Your task to perform on an android device: turn off location history Image 0: 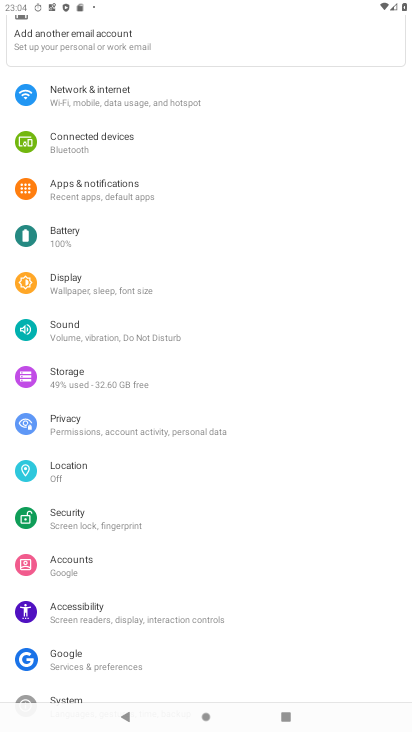
Step 0: click (59, 466)
Your task to perform on an android device: turn off location history Image 1: 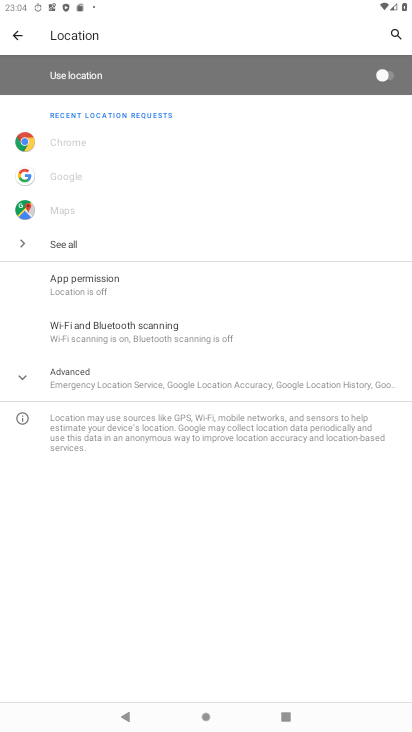
Step 1: click (88, 376)
Your task to perform on an android device: turn off location history Image 2: 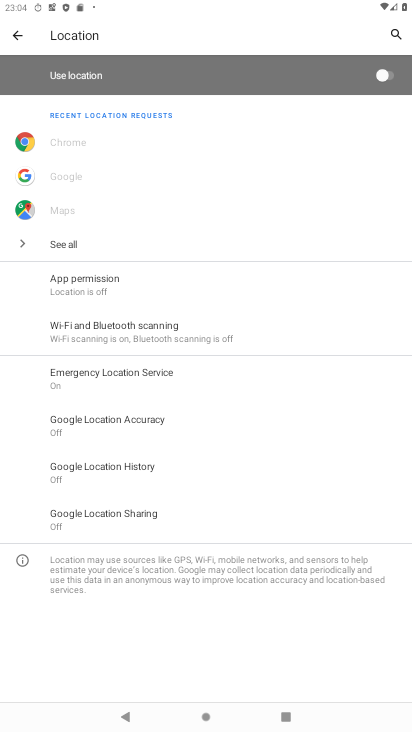
Step 2: click (116, 467)
Your task to perform on an android device: turn off location history Image 3: 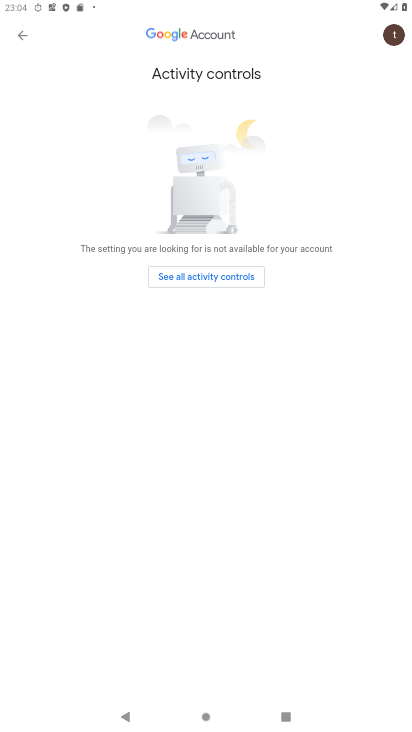
Step 3: click (190, 277)
Your task to perform on an android device: turn off location history Image 4: 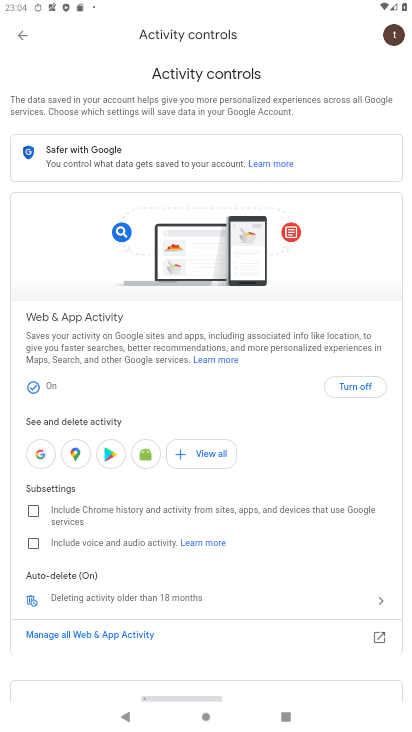
Step 4: click (361, 386)
Your task to perform on an android device: turn off location history Image 5: 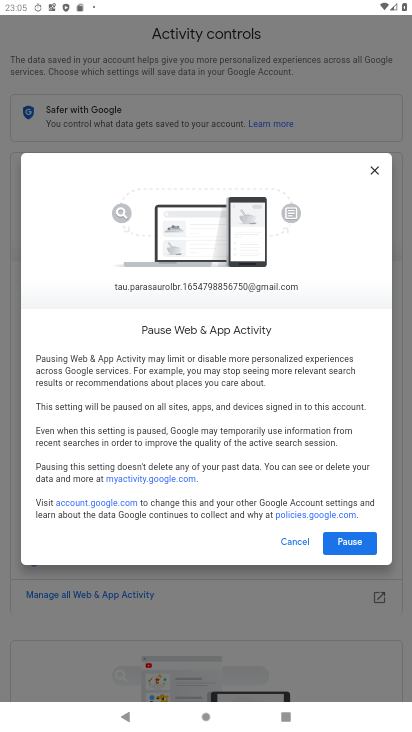
Step 5: click (361, 542)
Your task to perform on an android device: turn off location history Image 6: 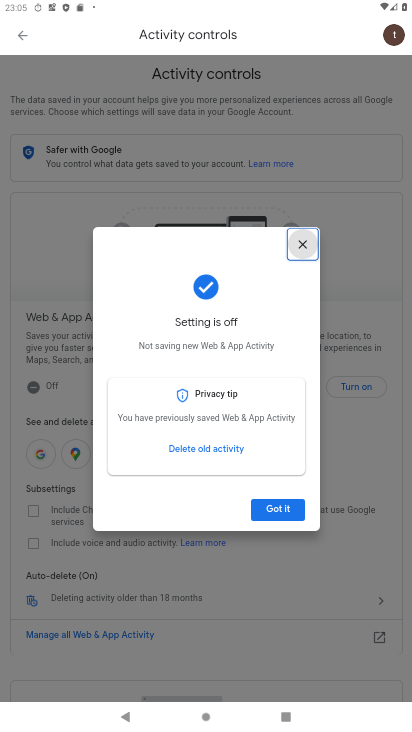
Step 6: click (279, 510)
Your task to perform on an android device: turn off location history Image 7: 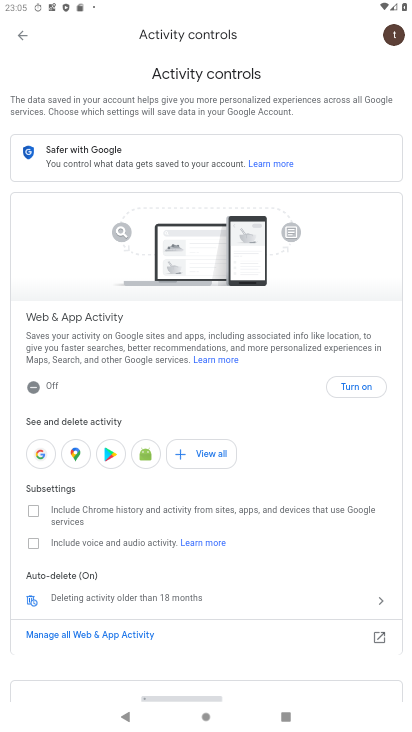
Step 7: task complete